Your task to perform on an android device: Open Google Chrome Image 0: 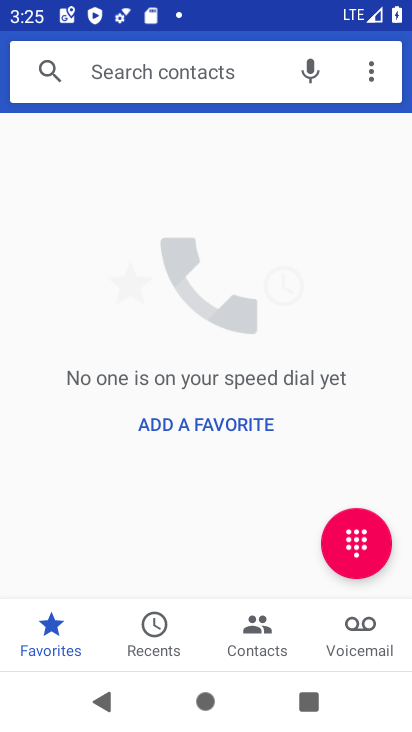
Step 0: press home button
Your task to perform on an android device: Open Google Chrome Image 1: 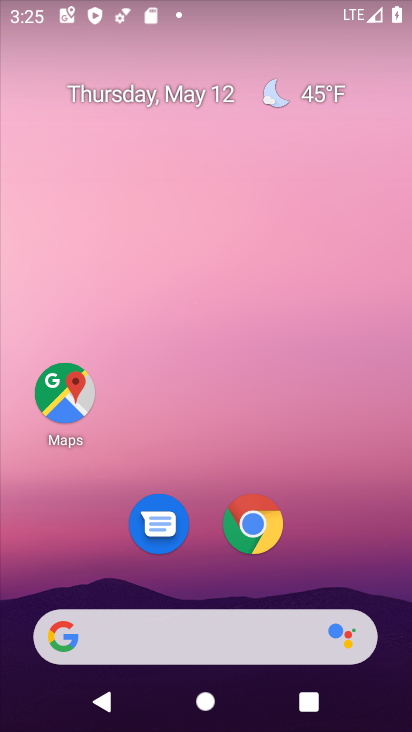
Step 1: click (260, 549)
Your task to perform on an android device: Open Google Chrome Image 2: 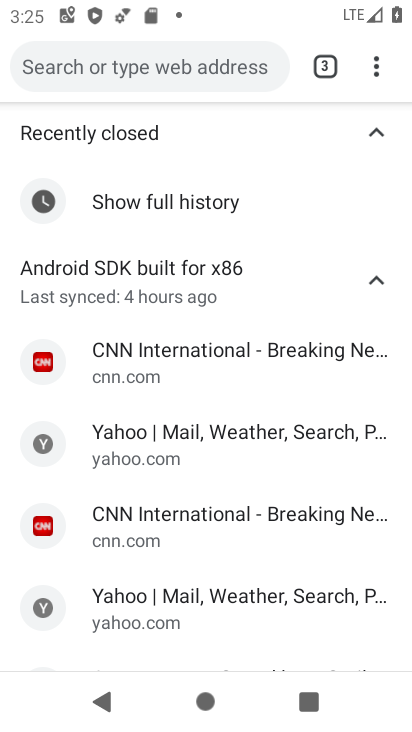
Step 2: click (372, 70)
Your task to perform on an android device: Open Google Chrome Image 3: 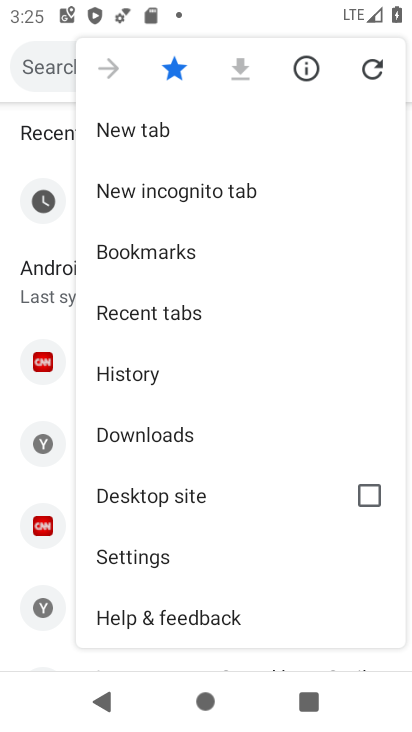
Step 3: click (250, 127)
Your task to perform on an android device: Open Google Chrome Image 4: 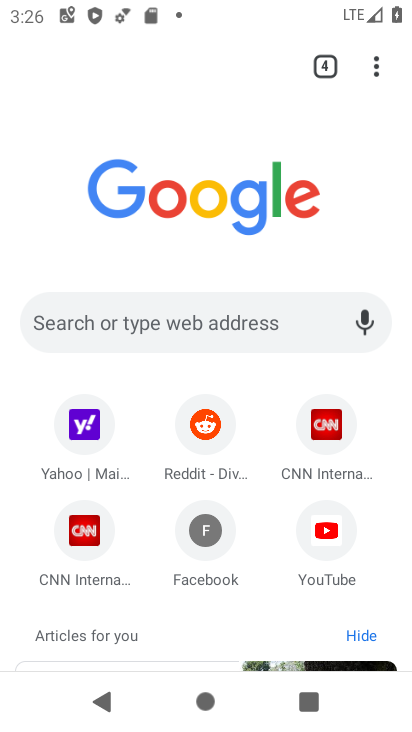
Step 4: task complete